Your task to perform on an android device: open a new tab in the chrome app Image 0: 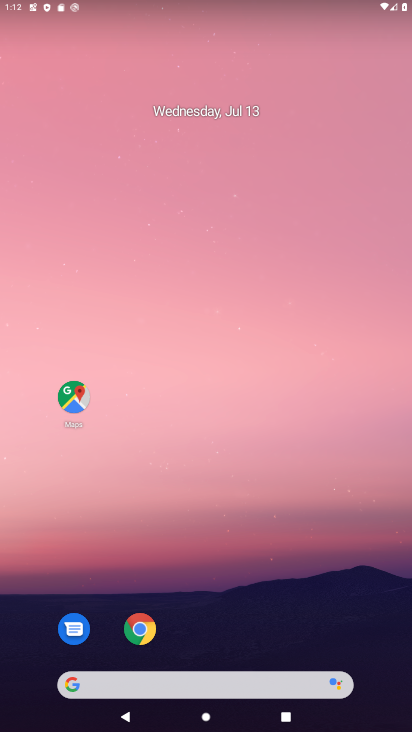
Step 0: drag from (201, 611) to (322, 137)
Your task to perform on an android device: open a new tab in the chrome app Image 1: 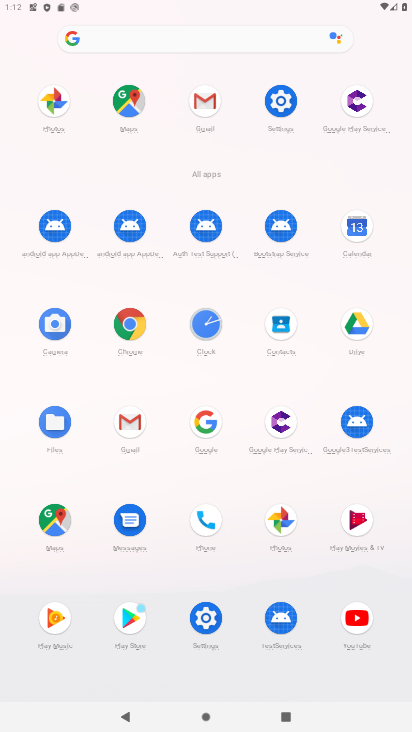
Step 1: click (133, 330)
Your task to perform on an android device: open a new tab in the chrome app Image 2: 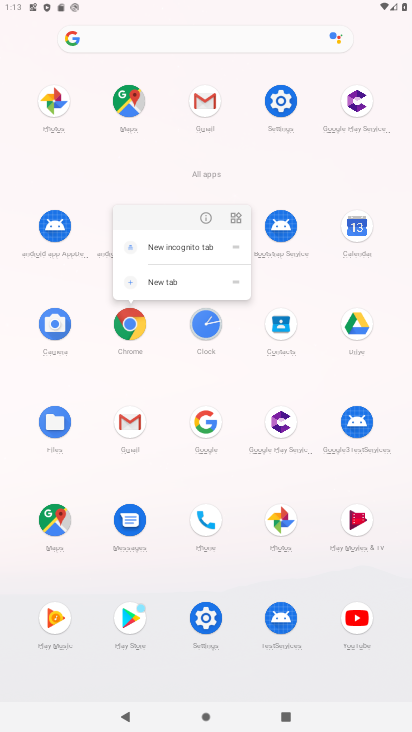
Step 2: click (208, 214)
Your task to perform on an android device: open a new tab in the chrome app Image 3: 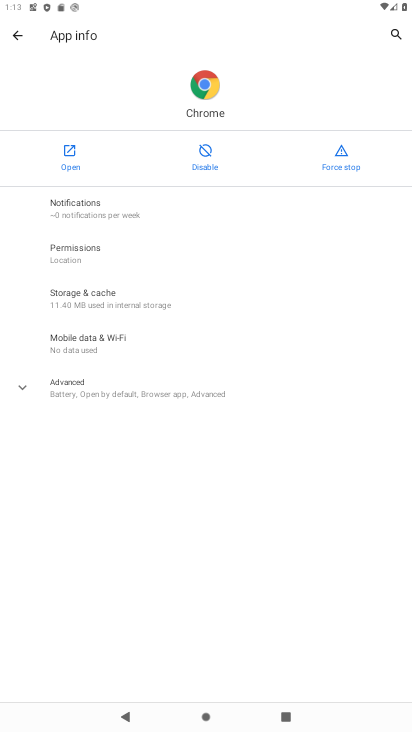
Step 3: click (80, 152)
Your task to perform on an android device: open a new tab in the chrome app Image 4: 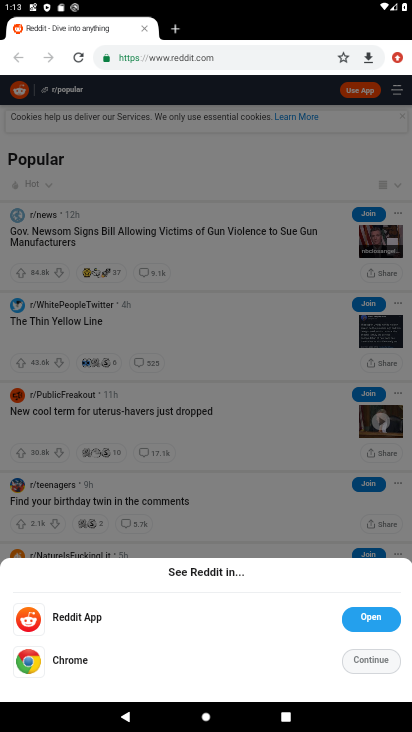
Step 4: click (397, 56)
Your task to perform on an android device: open a new tab in the chrome app Image 5: 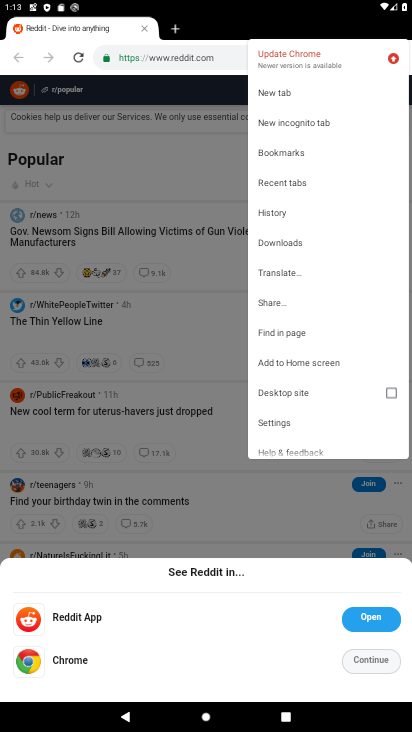
Step 5: click (303, 84)
Your task to perform on an android device: open a new tab in the chrome app Image 6: 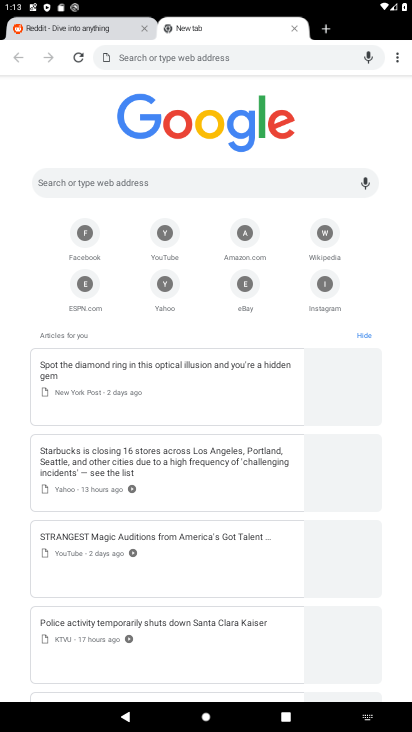
Step 6: drag from (222, 482) to (221, 218)
Your task to perform on an android device: open a new tab in the chrome app Image 7: 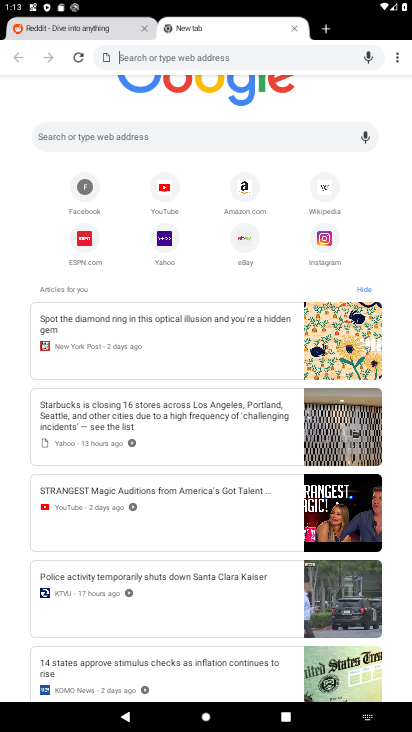
Step 7: drag from (212, 583) to (212, 347)
Your task to perform on an android device: open a new tab in the chrome app Image 8: 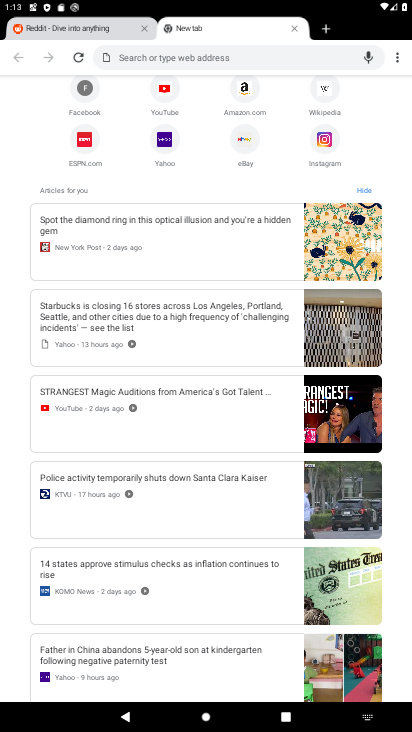
Step 8: drag from (141, 403) to (200, 238)
Your task to perform on an android device: open a new tab in the chrome app Image 9: 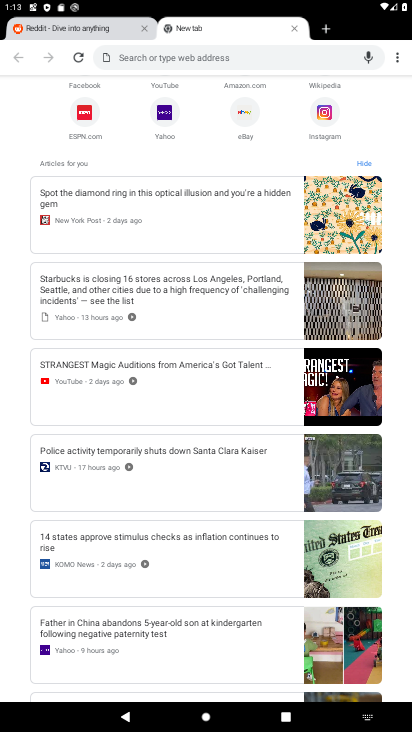
Step 9: drag from (223, 207) to (246, 683)
Your task to perform on an android device: open a new tab in the chrome app Image 10: 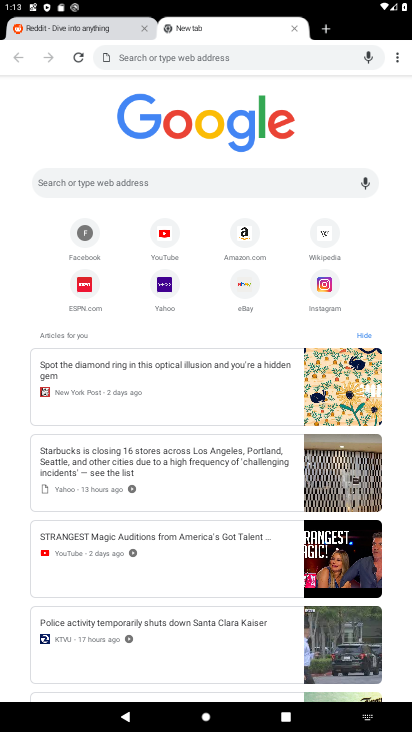
Step 10: drag from (231, 586) to (273, 622)
Your task to perform on an android device: open a new tab in the chrome app Image 11: 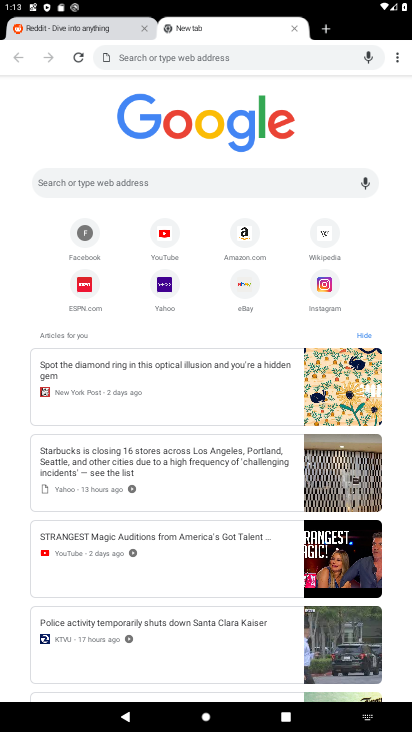
Step 11: click (396, 60)
Your task to perform on an android device: open a new tab in the chrome app Image 12: 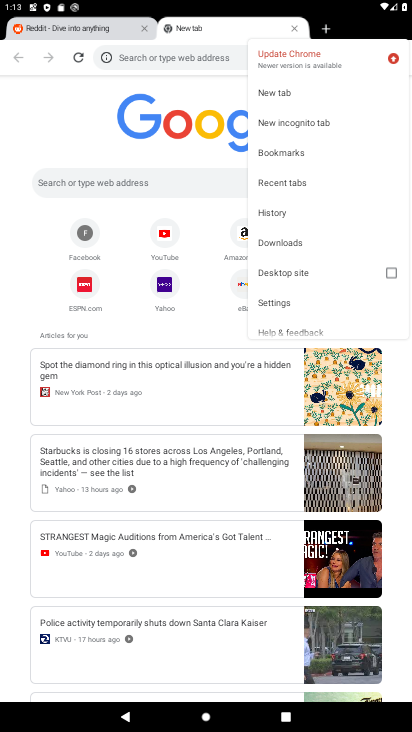
Step 12: click (289, 92)
Your task to perform on an android device: open a new tab in the chrome app Image 13: 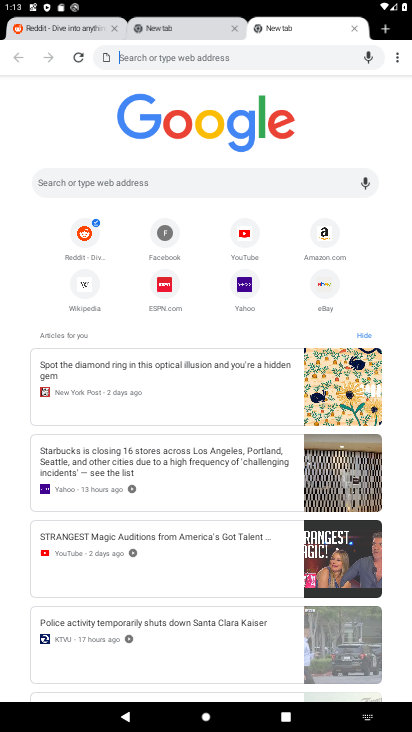
Step 13: task complete